Your task to perform on an android device: Open Yahoo.com Image 0: 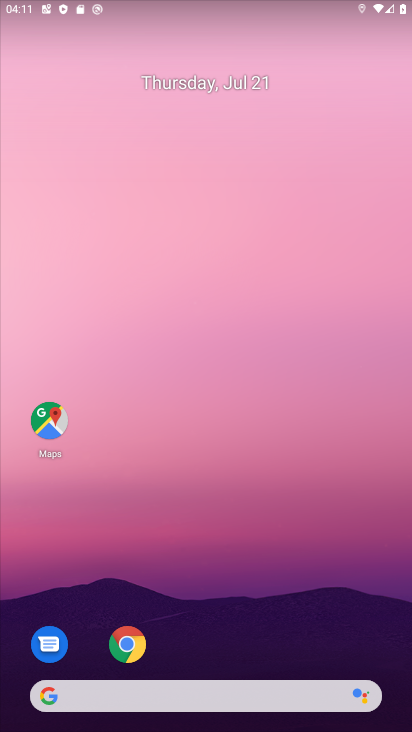
Step 0: click (128, 641)
Your task to perform on an android device: Open Yahoo.com Image 1: 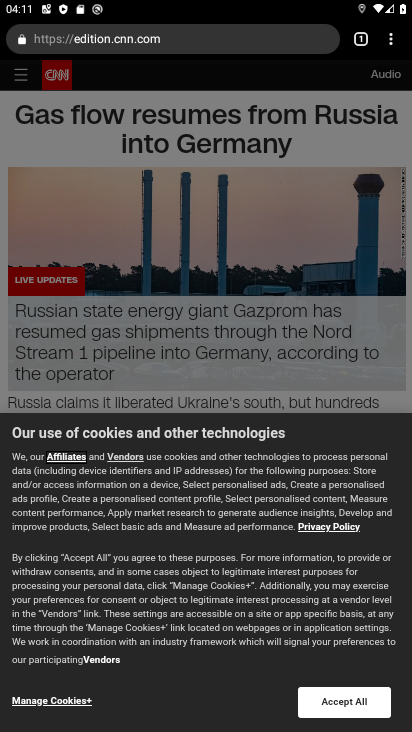
Step 1: click (168, 45)
Your task to perform on an android device: Open Yahoo.com Image 2: 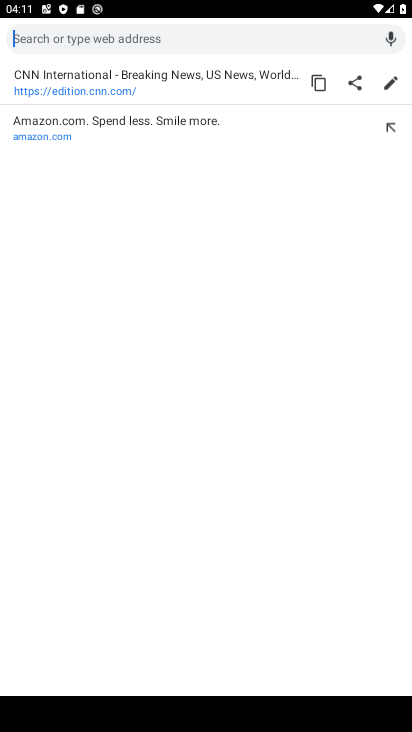
Step 2: type "yahoo.com"
Your task to perform on an android device: Open Yahoo.com Image 3: 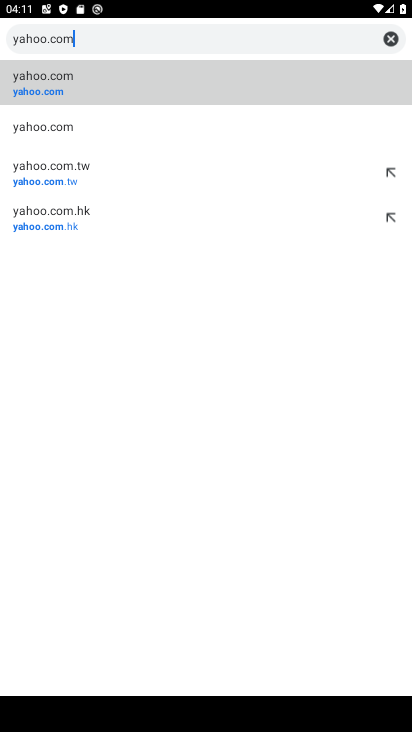
Step 3: click (40, 91)
Your task to perform on an android device: Open Yahoo.com Image 4: 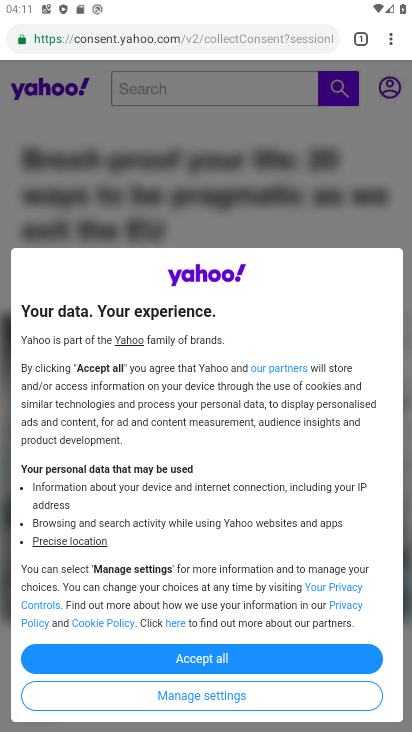
Step 4: click (220, 661)
Your task to perform on an android device: Open Yahoo.com Image 5: 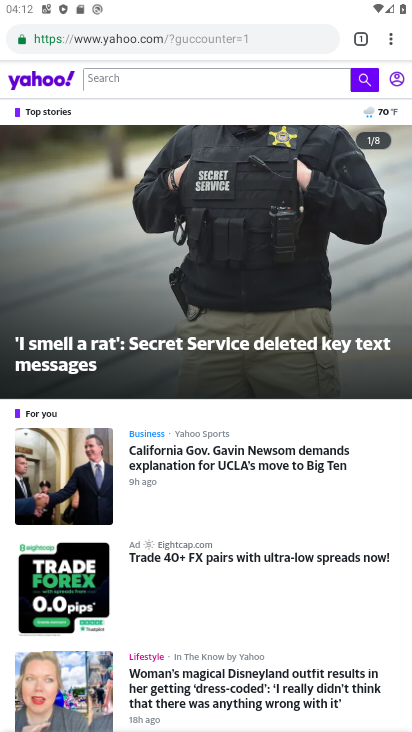
Step 5: task complete